Your task to perform on an android device: delete browsing data in the chrome app Image 0: 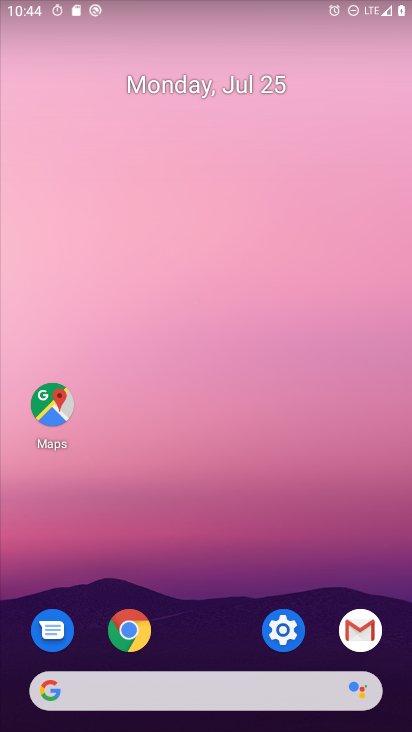
Step 0: click (138, 635)
Your task to perform on an android device: delete browsing data in the chrome app Image 1: 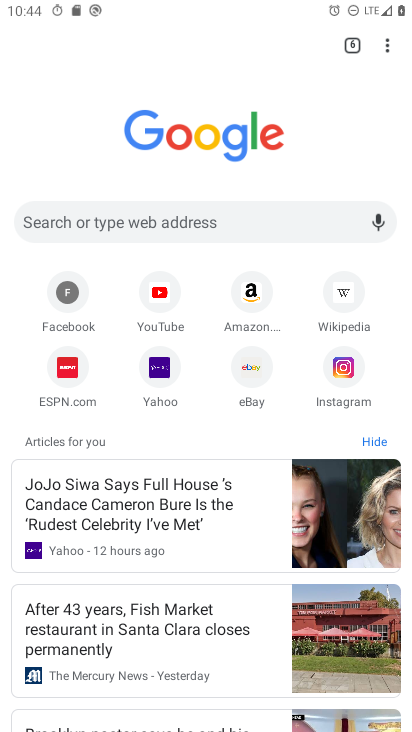
Step 1: click (391, 48)
Your task to perform on an android device: delete browsing data in the chrome app Image 2: 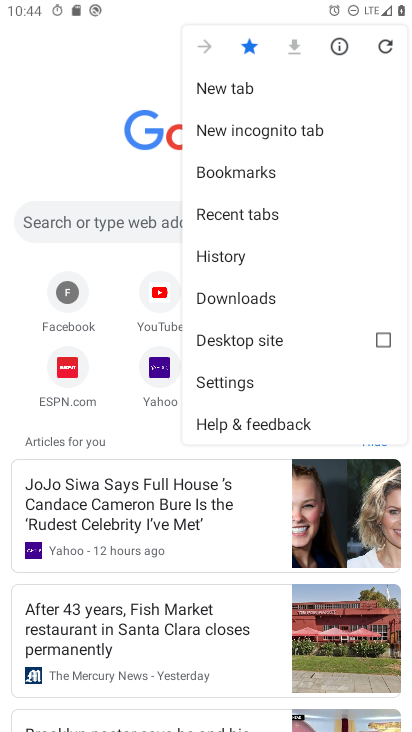
Step 2: click (231, 262)
Your task to perform on an android device: delete browsing data in the chrome app Image 3: 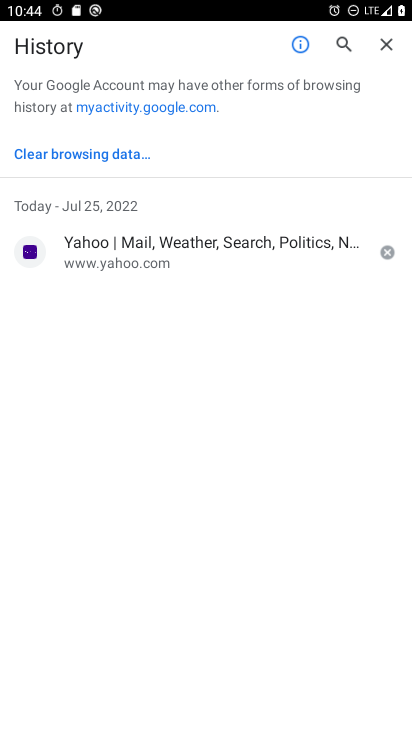
Step 3: click (151, 154)
Your task to perform on an android device: delete browsing data in the chrome app Image 4: 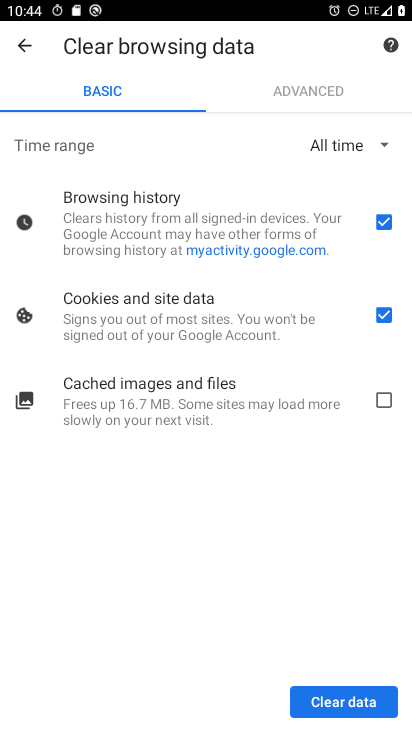
Step 4: click (355, 694)
Your task to perform on an android device: delete browsing data in the chrome app Image 5: 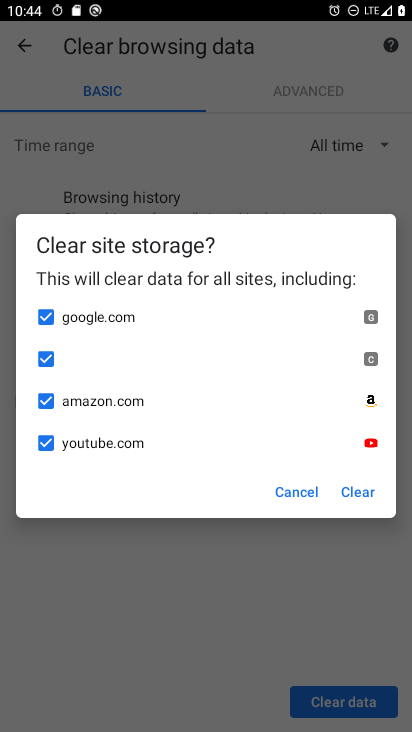
Step 5: click (365, 493)
Your task to perform on an android device: delete browsing data in the chrome app Image 6: 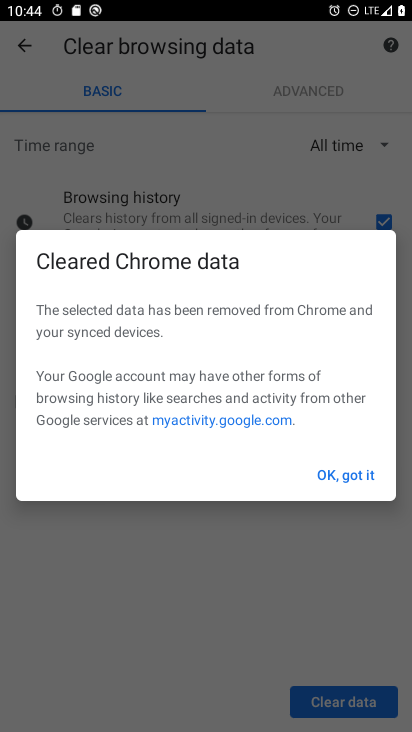
Step 6: task complete